Your task to perform on an android device: find which apps use the phone's location Image 0: 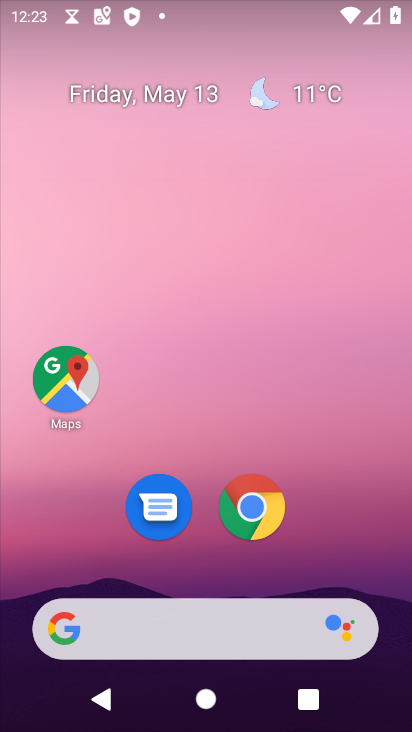
Step 0: drag from (188, 571) to (167, 0)
Your task to perform on an android device: find which apps use the phone's location Image 1: 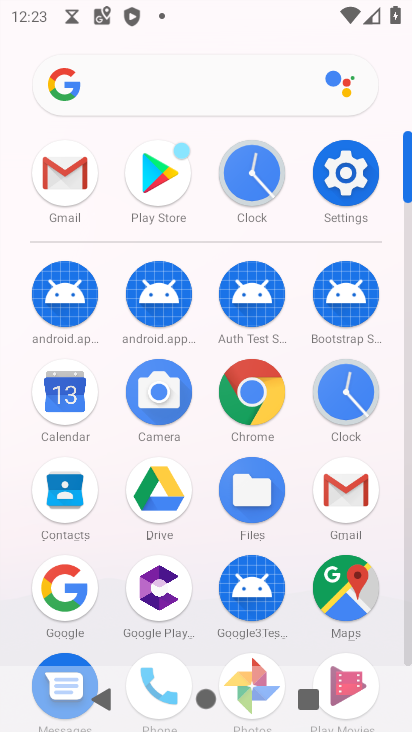
Step 1: click (345, 166)
Your task to perform on an android device: find which apps use the phone's location Image 2: 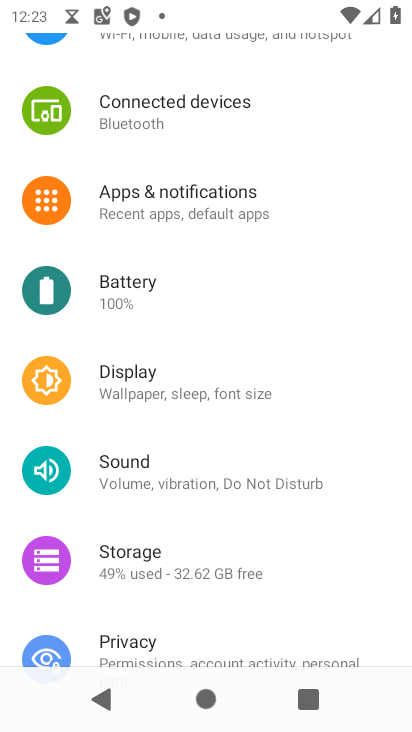
Step 2: click (151, 208)
Your task to perform on an android device: find which apps use the phone's location Image 3: 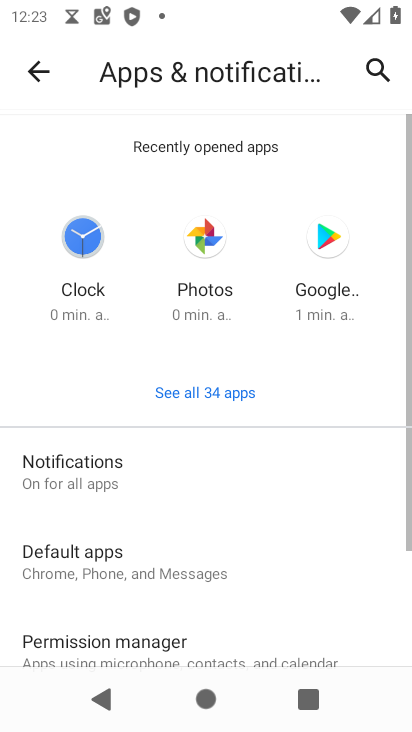
Step 3: click (102, 483)
Your task to perform on an android device: find which apps use the phone's location Image 4: 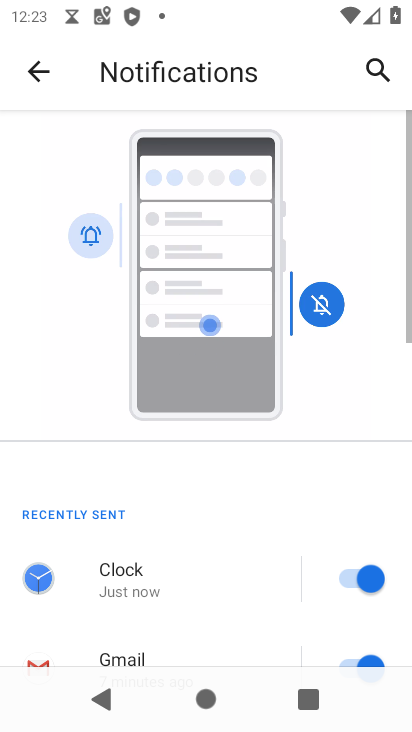
Step 4: click (21, 69)
Your task to perform on an android device: find which apps use the phone's location Image 5: 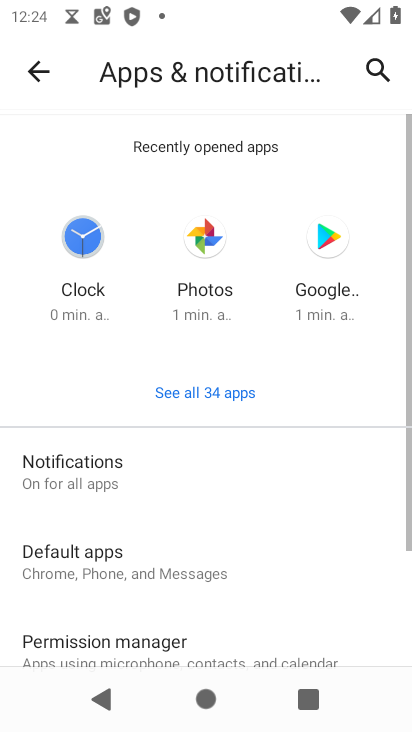
Step 5: click (140, 578)
Your task to perform on an android device: find which apps use the phone's location Image 6: 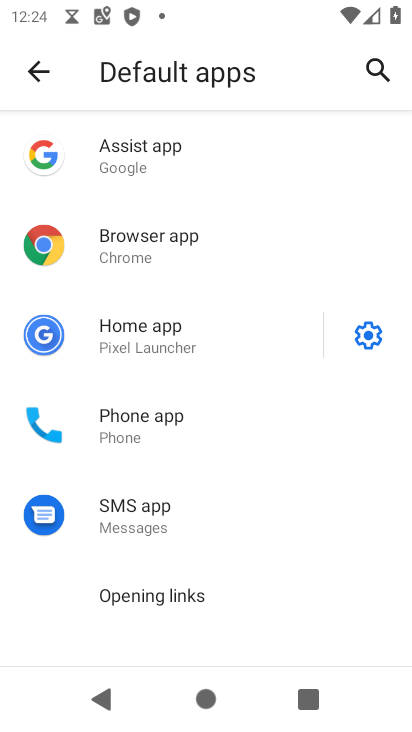
Step 6: click (53, 71)
Your task to perform on an android device: find which apps use the phone's location Image 7: 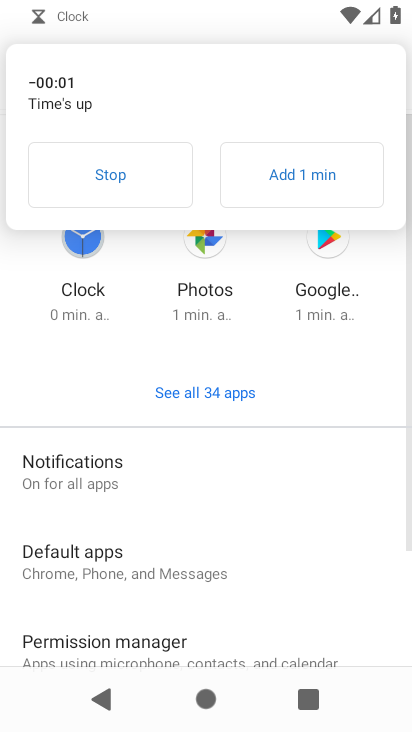
Step 7: click (23, 68)
Your task to perform on an android device: find which apps use the phone's location Image 8: 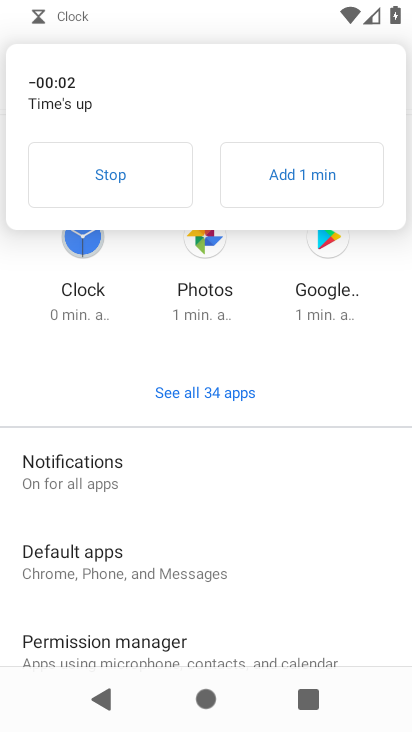
Step 8: click (92, 151)
Your task to perform on an android device: find which apps use the phone's location Image 9: 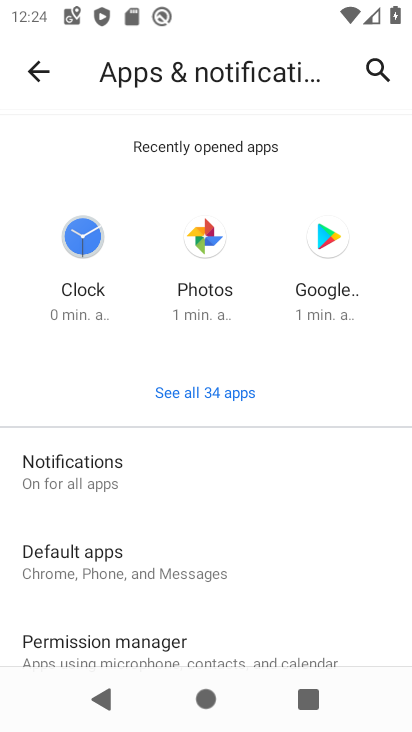
Step 9: task complete